Your task to perform on an android device: Open maps Image 0: 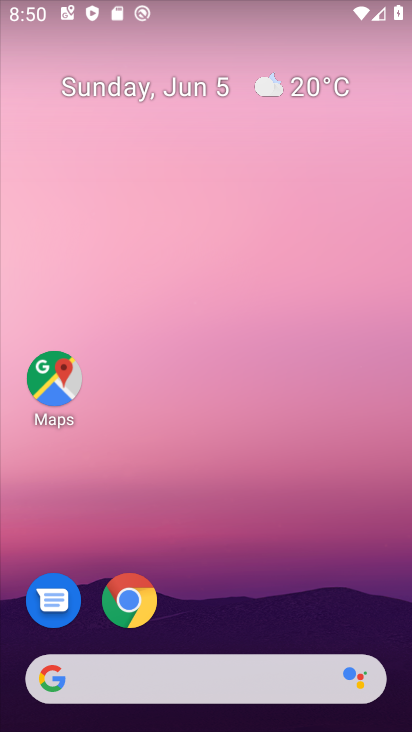
Step 0: click (58, 381)
Your task to perform on an android device: Open maps Image 1: 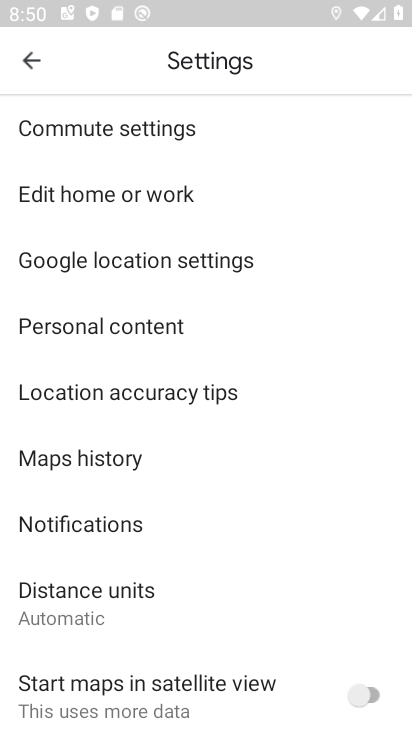
Step 1: click (28, 56)
Your task to perform on an android device: Open maps Image 2: 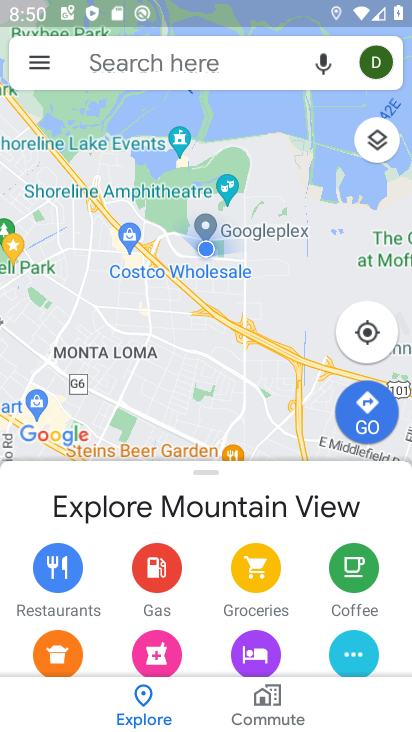
Step 2: task complete